Your task to perform on an android device: turn on improve location accuracy Image 0: 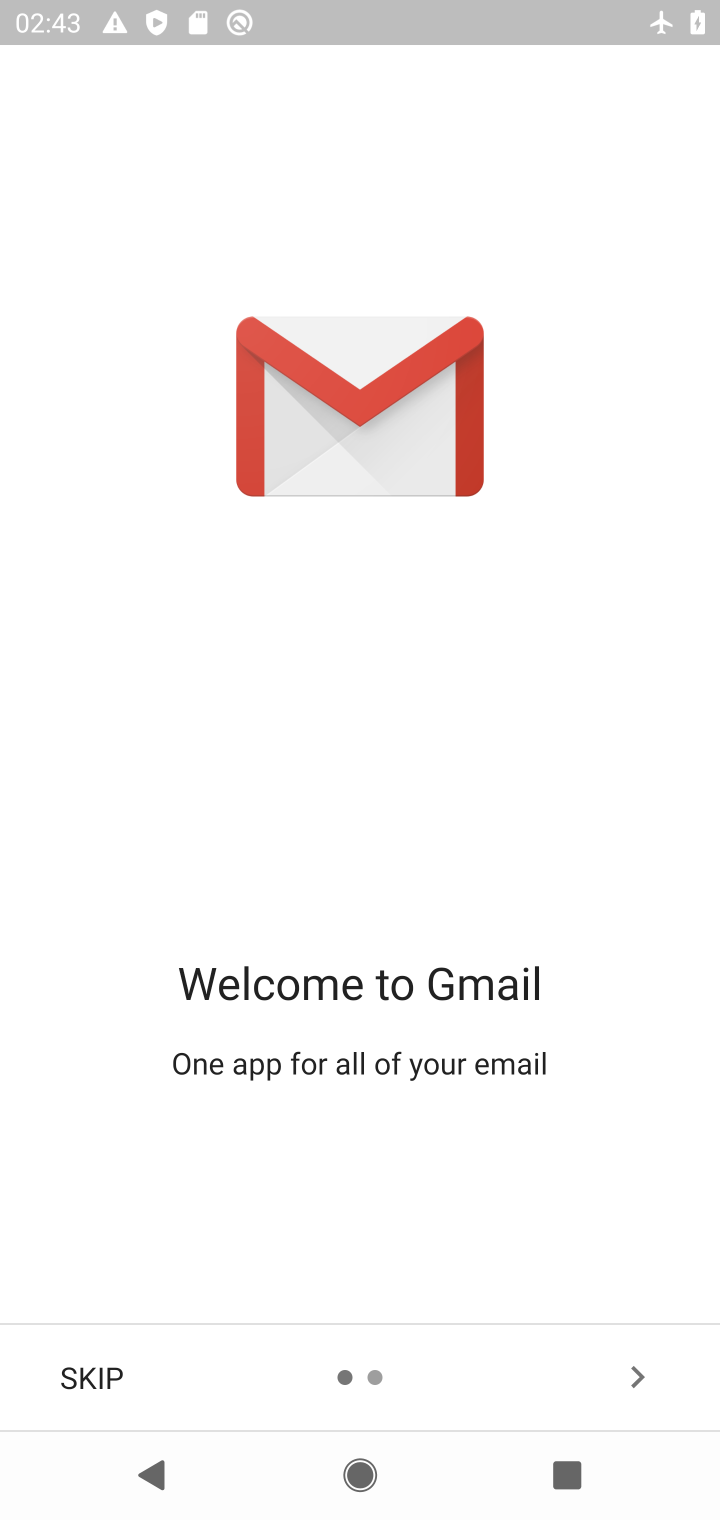
Step 0: press home button
Your task to perform on an android device: turn on improve location accuracy Image 1: 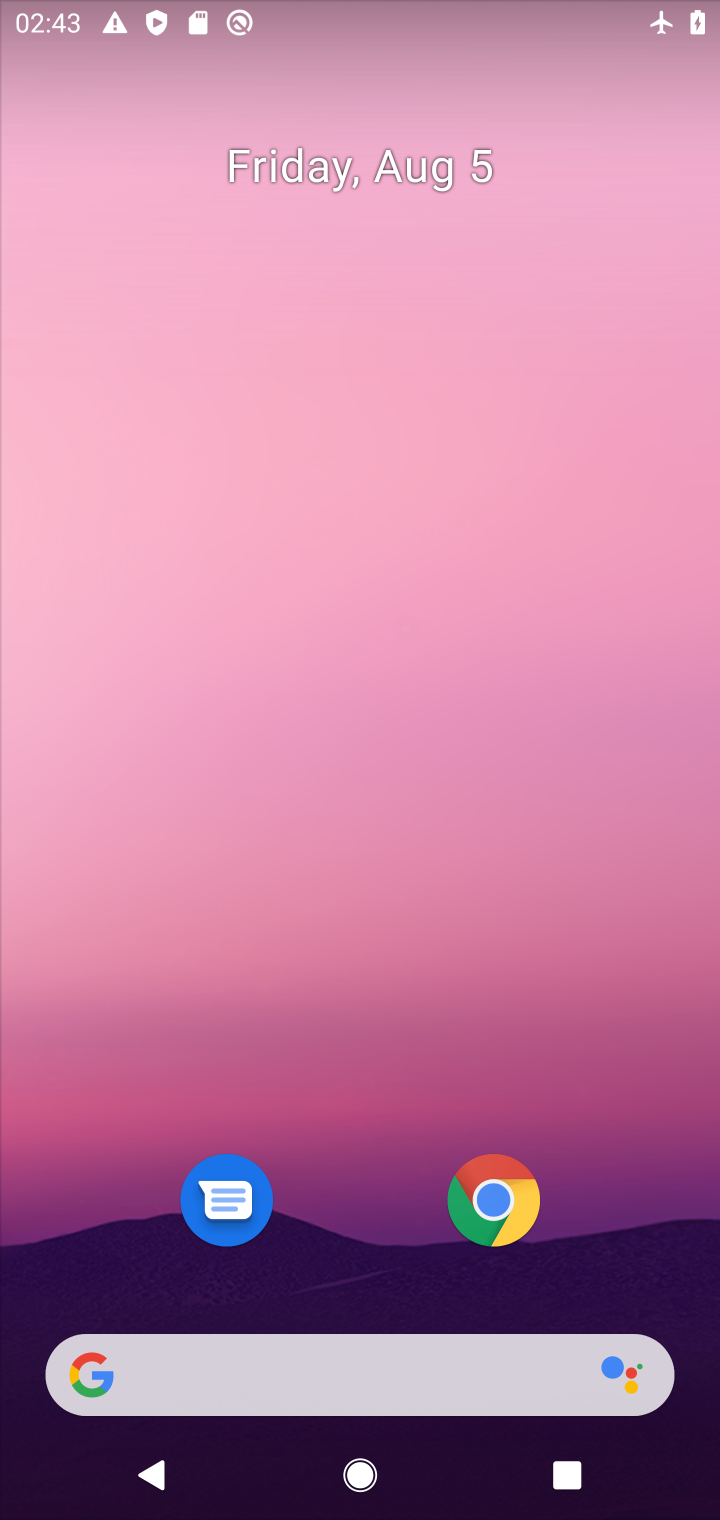
Step 1: drag from (340, 1214) to (353, 284)
Your task to perform on an android device: turn on improve location accuracy Image 2: 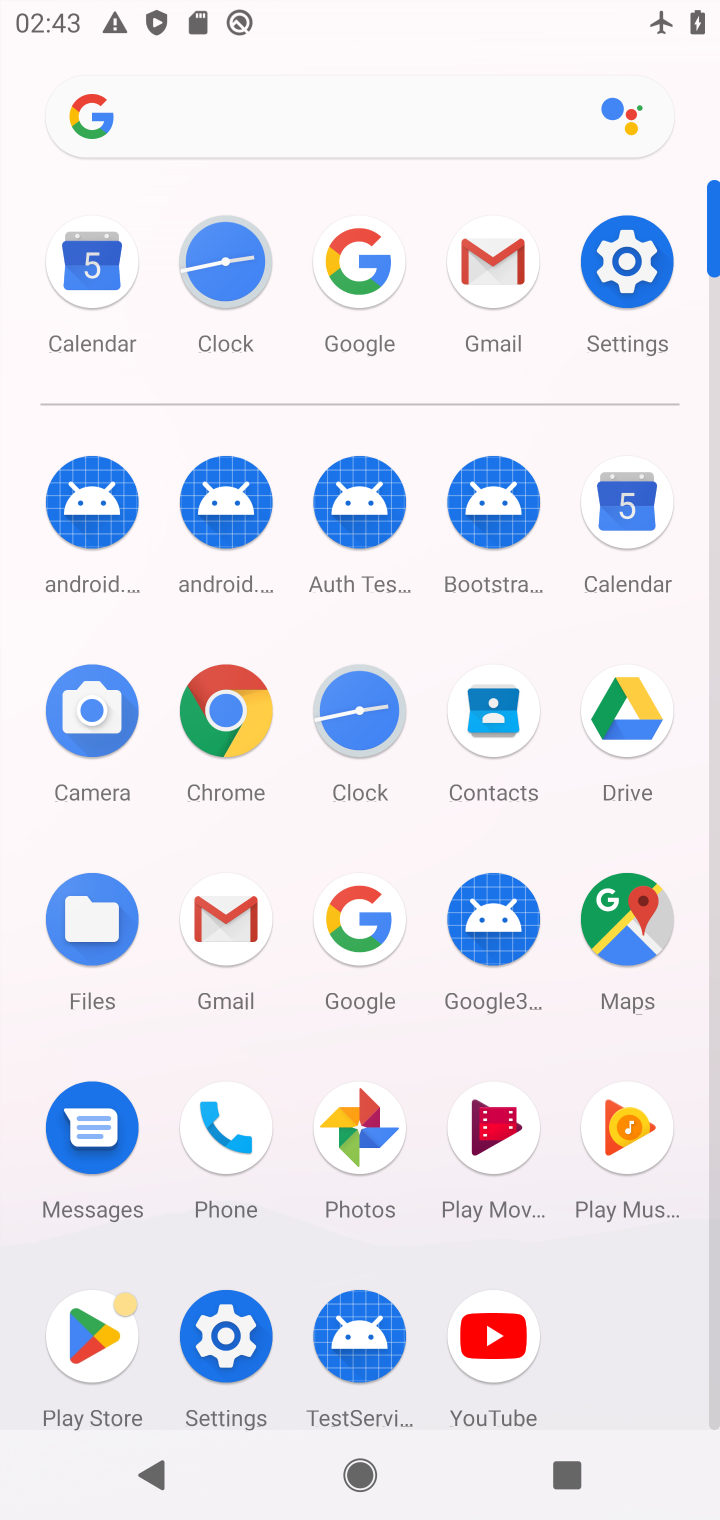
Step 2: click (636, 242)
Your task to perform on an android device: turn on improve location accuracy Image 3: 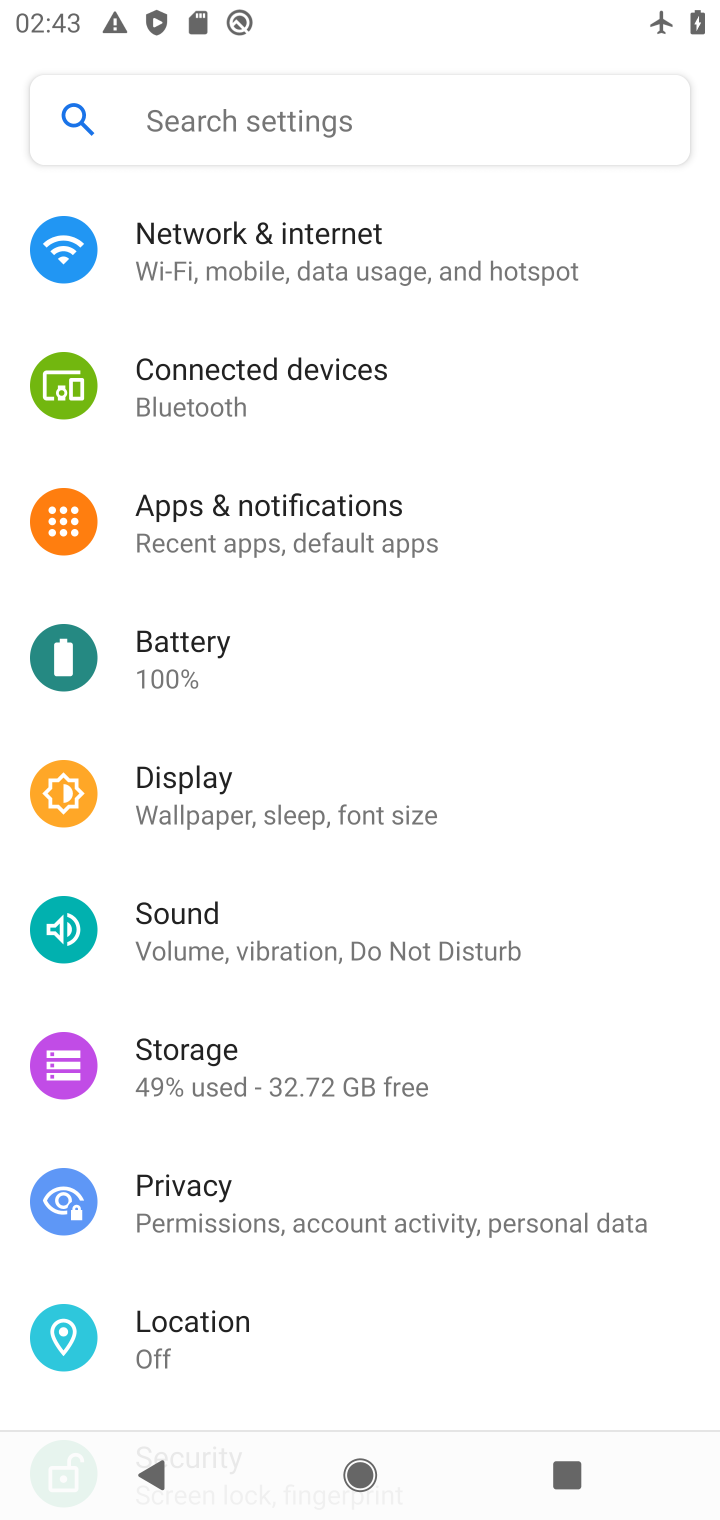
Step 3: click (264, 1308)
Your task to perform on an android device: turn on improve location accuracy Image 4: 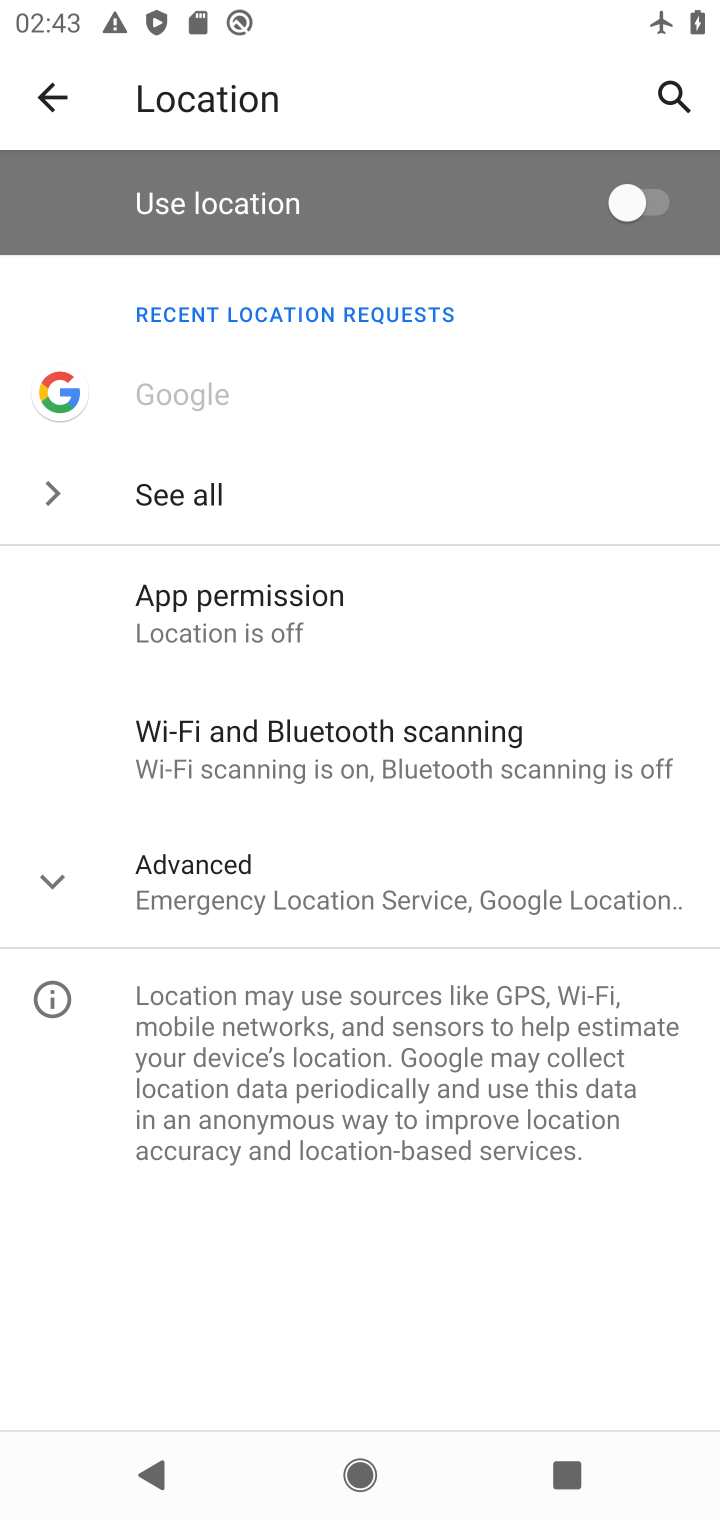
Step 4: click (218, 913)
Your task to perform on an android device: turn on improve location accuracy Image 5: 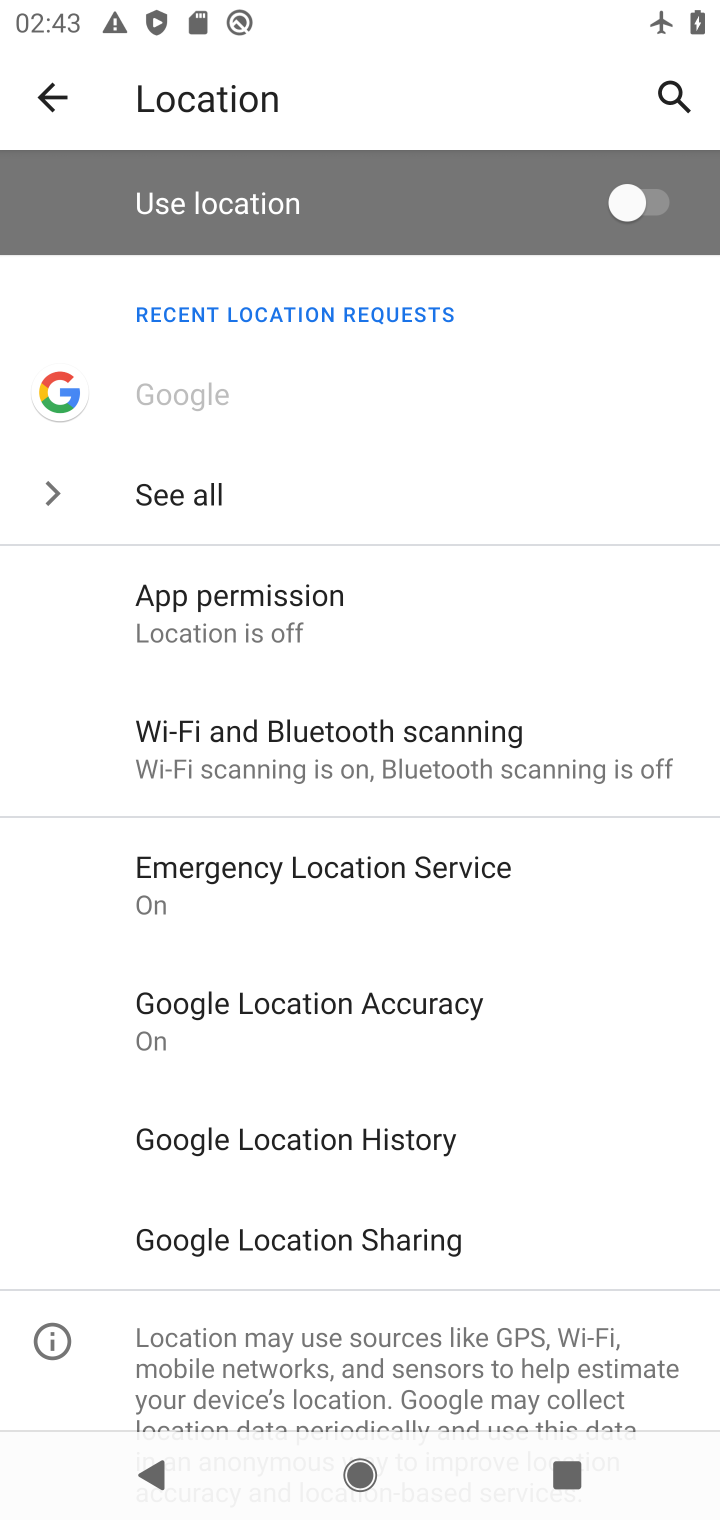
Step 5: click (418, 1002)
Your task to perform on an android device: turn on improve location accuracy Image 6: 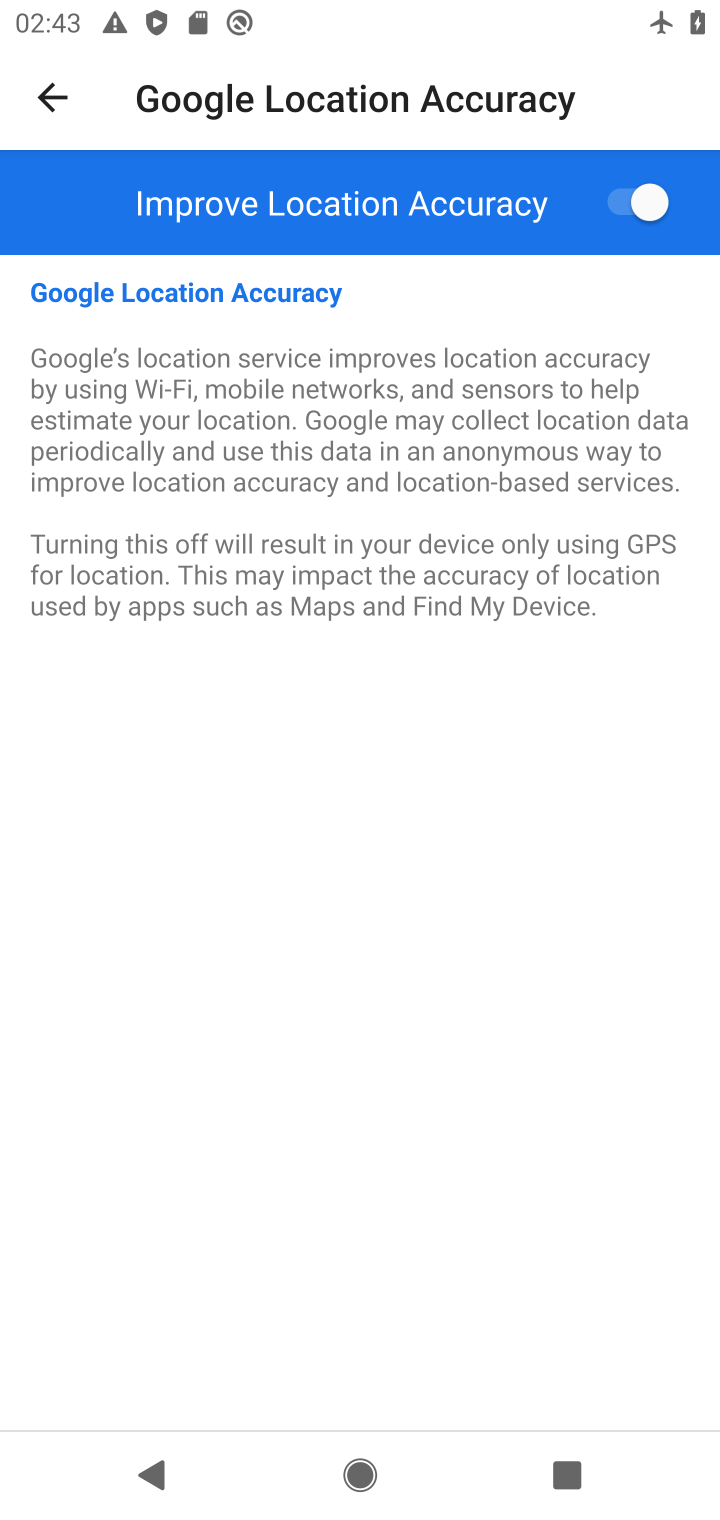
Step 6: task complete